Your task to perform on an android device: Check the weather Image 0: 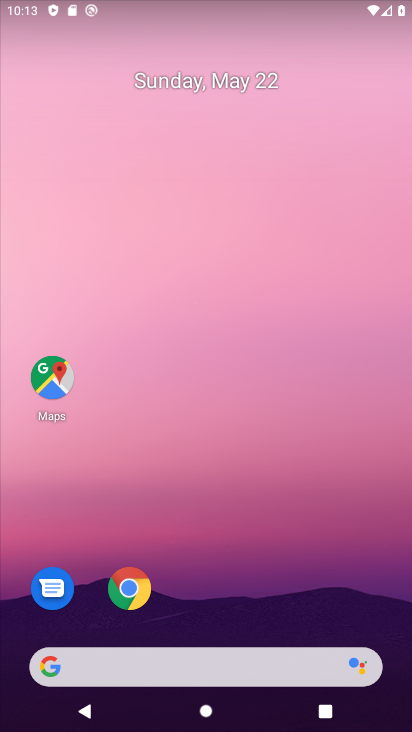
Step 0: drag from (229, 726) to (229, 102)
Your task to perform on an android device: Check the weather Image 1: 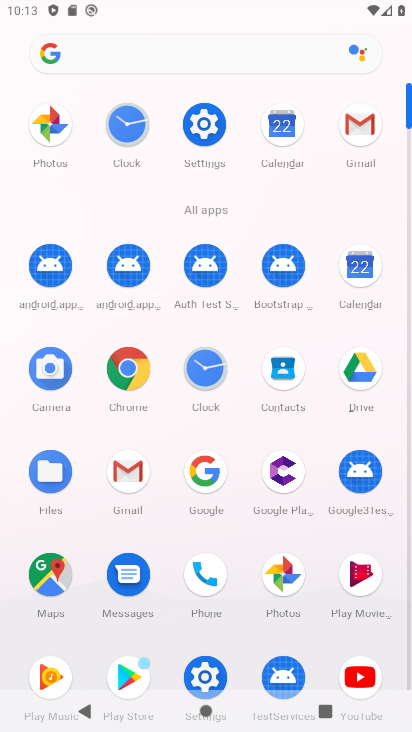
Step 1: click (204, 465)
Your task to perform on an android device: Check the weather Image 2: 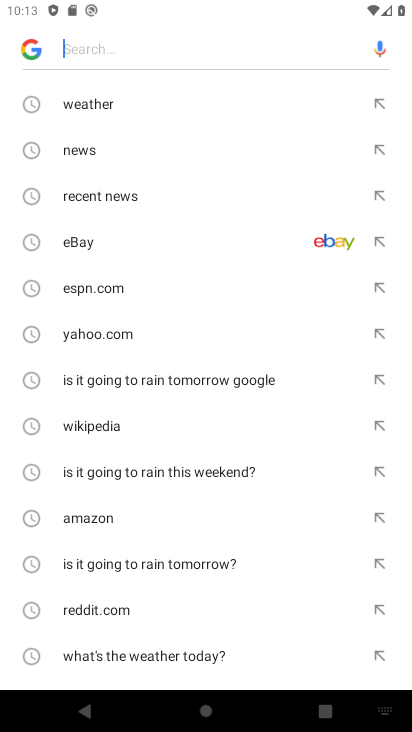
Step 2: click (87, 107)
Your task to perform on an android device: Check the weather Image 3: 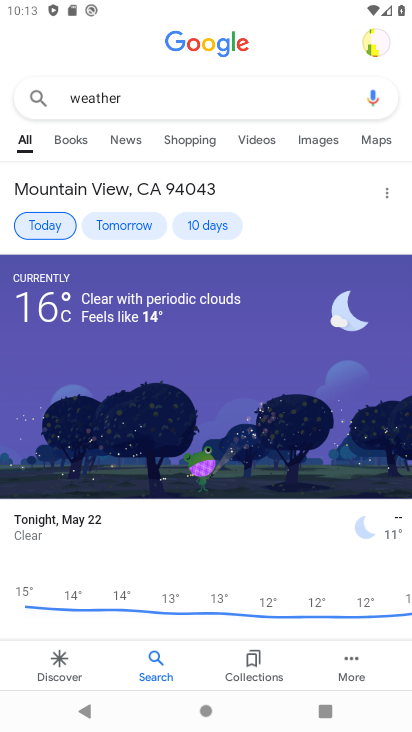
Step 3: task complete